Your task to perform on an android device: choose inbox layout in the gmail app Image 0: 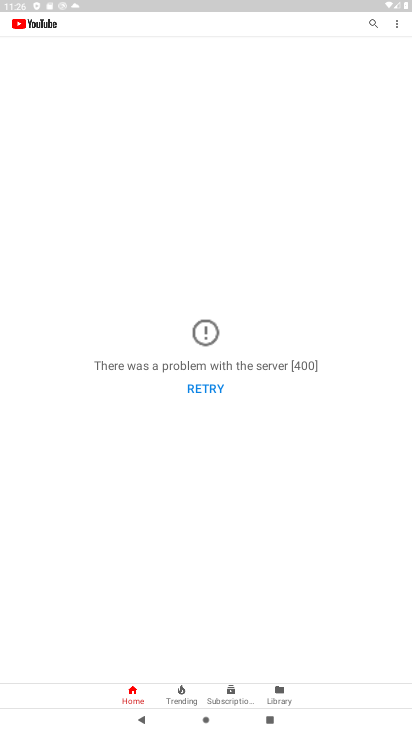
Step 0: press home button
Your task to perform on an android device: choose inbox layout in the gmail app Image 1: 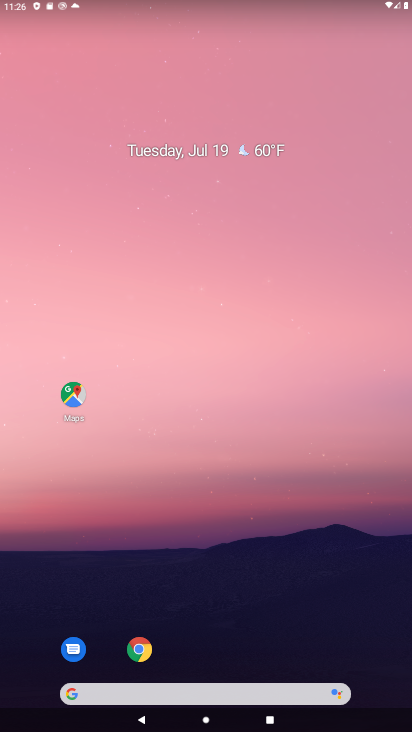
Step 1: drag from (194, 691) to (157, 236)
Your task to perform on an android device: choose inbox layout in the gmail app Image 2: 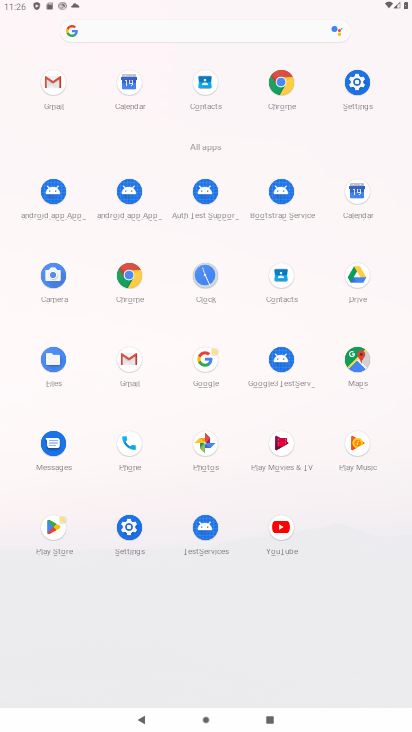
Step 2: click (117, 354)
Your task to perform on an android device: choose inbox layout in the gmail app Image 3: 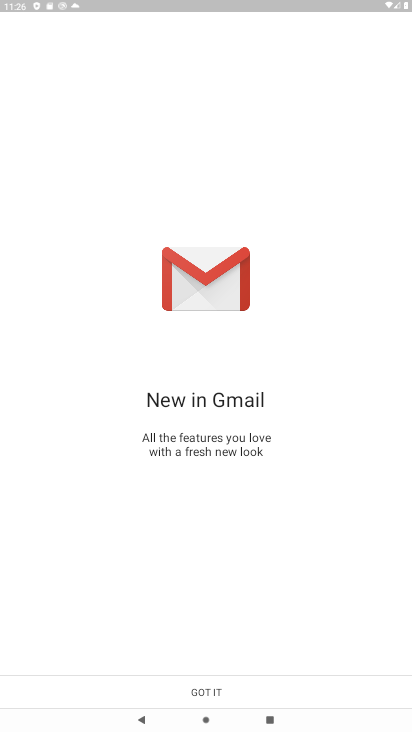
Step 3: click (191, 681)
Your task to perform on an android device: choose inbox layout in the gmail app Image 4: 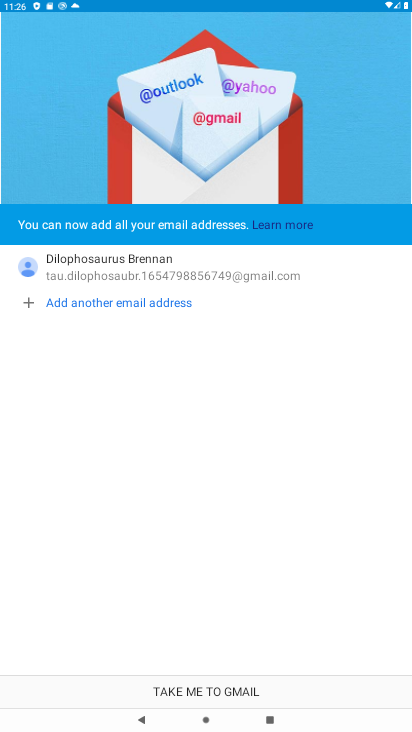
Step 4: click (208, 690)
Your task to perform on an android device: choose inbox layout in the gmail app Image 5: 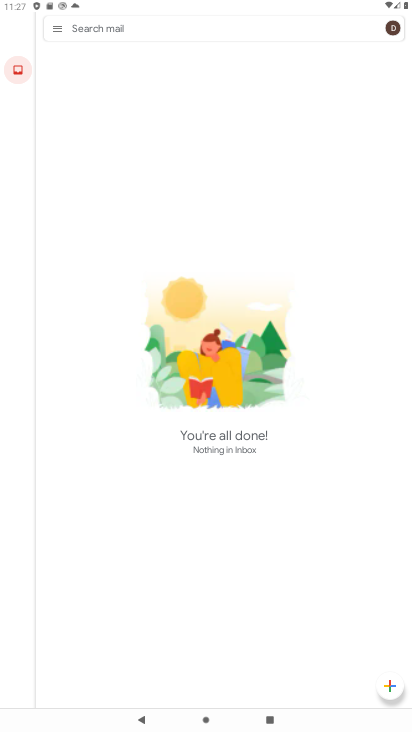
Step 5: click (59, 33)
Your task to perform on an android device: choose inbox layout in the gmail app Image 6: 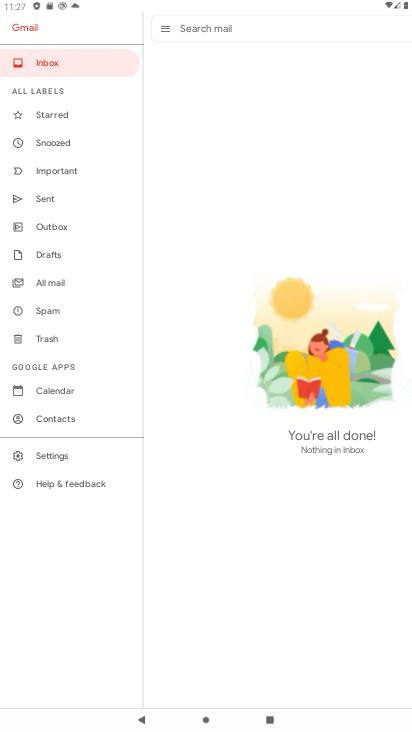
Step 6: click (55, 459)
Your task to perform on an android device: choose inbox layout in the gmail app Image 7: 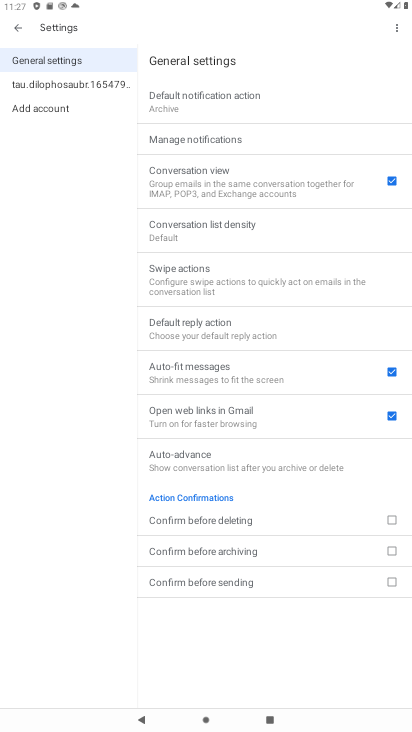
Step 7: click (74, 86)
Your task to perform on an android device: choose inbox layout in the gmail app Image 8: 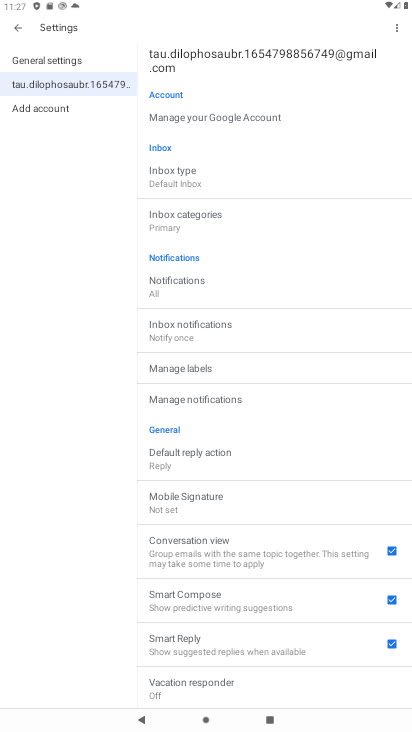
Step 8: click (191, 170)
Your task to perform on an android device: choose inbox layout in the gmail app Image 9: 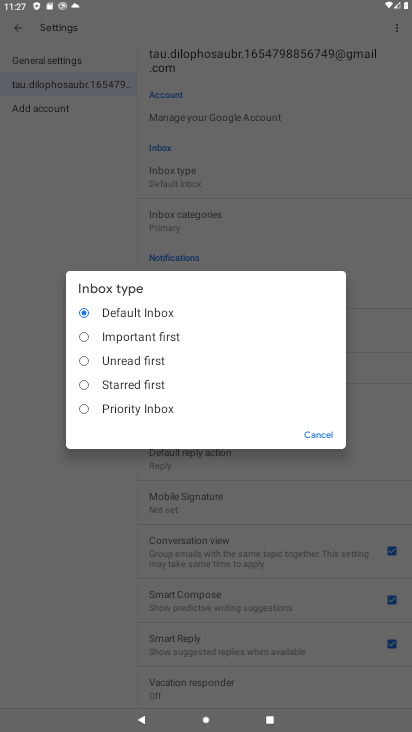
Step 9: click (147, 407)
Your task to perform on an android device: choose inbox layout in the gmail app Image 10: 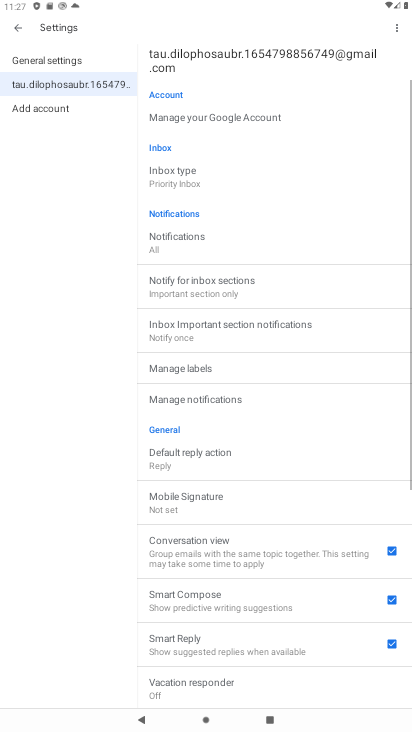
Step 10: task complete